Your task to perform on an android device: Open Google Image 0: 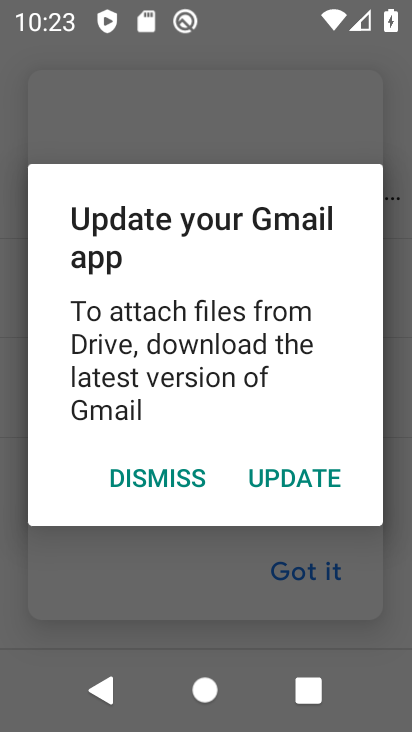
Step 0: press home button
Your task to perform on an android device: Open Google Image 1: 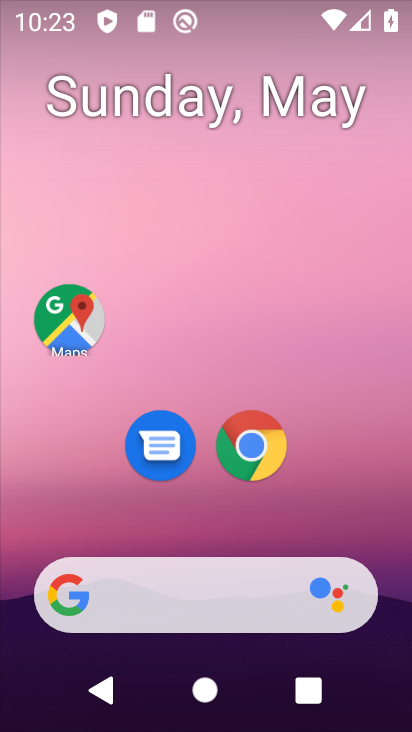
Step 1: drag from (202, 485) to (235, 191)
Your task to perform on an android device: Open Google Image 2: 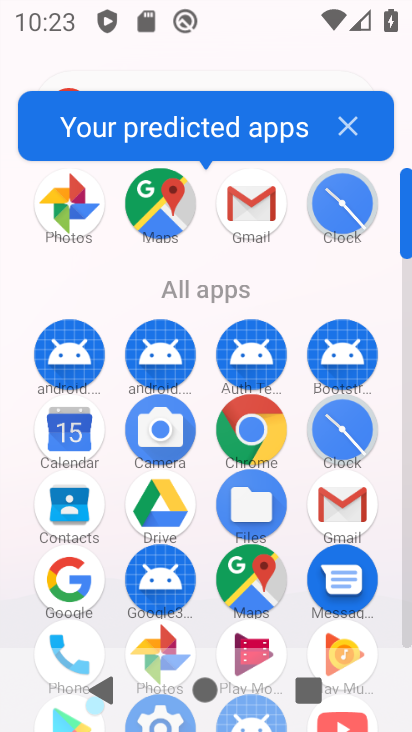
Step 2: click (62, 575)
Your task to perform on an android device: Open Google Image 3: 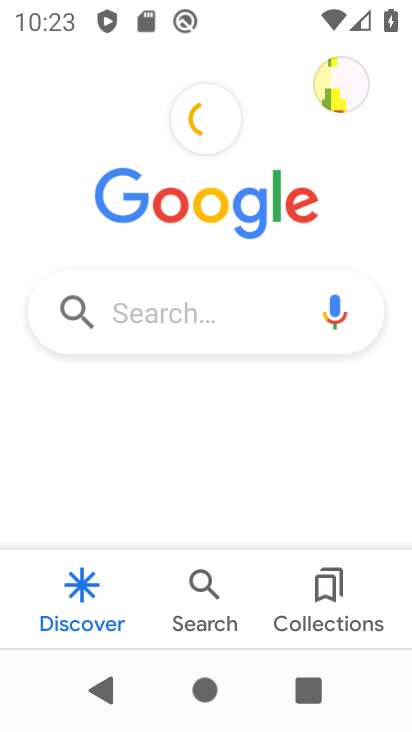
Step 3: task complete